Your task to perform on an android device: change keyboard looks Image 0: 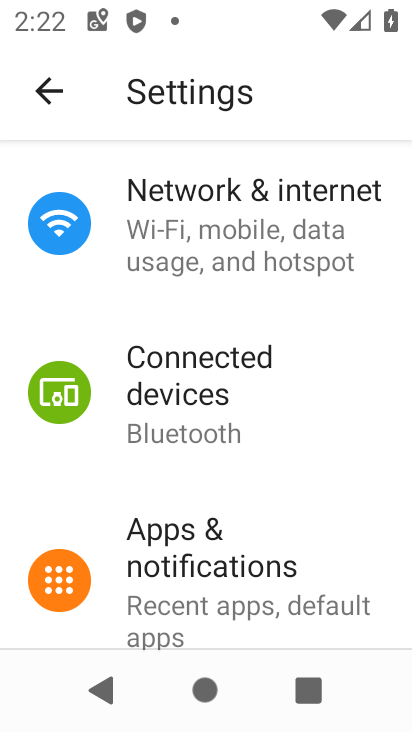
Step 0: drag from (299, 491) to (353, 335)
Your task to perform on an android device: change keyboard looks Image 1: 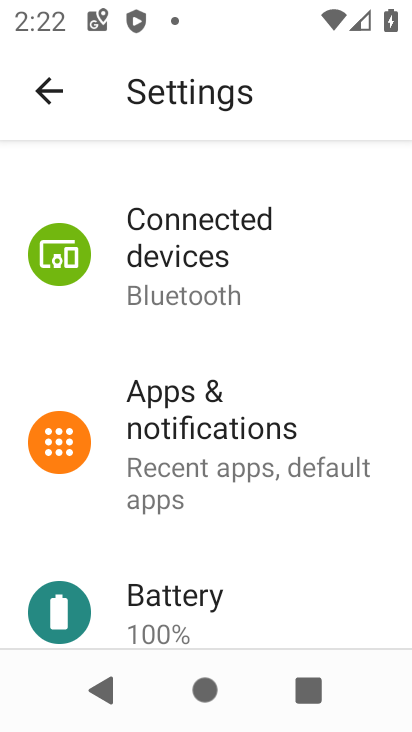
Step 1: drag from (256, 513) to (321, 321)
Your task to perform on an android device: change keyboard looks Image 2: 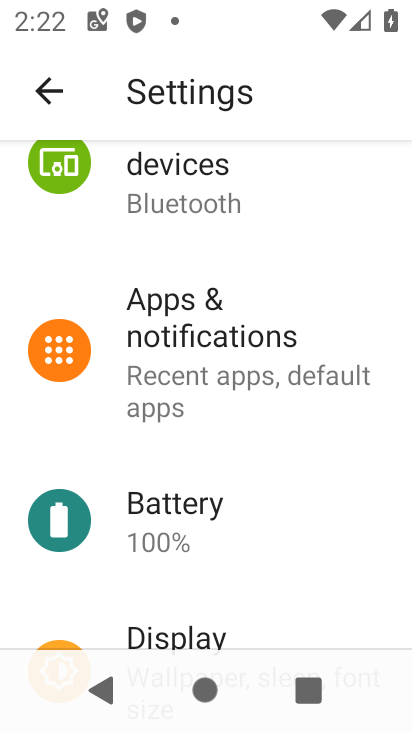
Step 2: drag from (253, 485) to (305, 343)
Your task to perform on an android device: change keyboard looks Image 3: 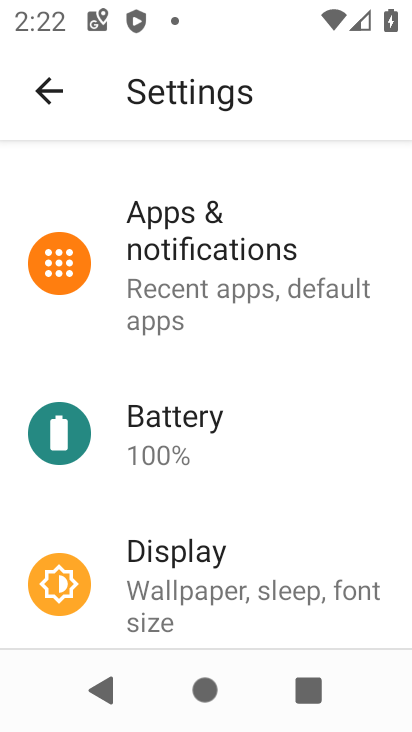
Step 3: drag from (256, 480) to (296, 344)
Your task to perform on an android device: change keyboard looks Image 4: 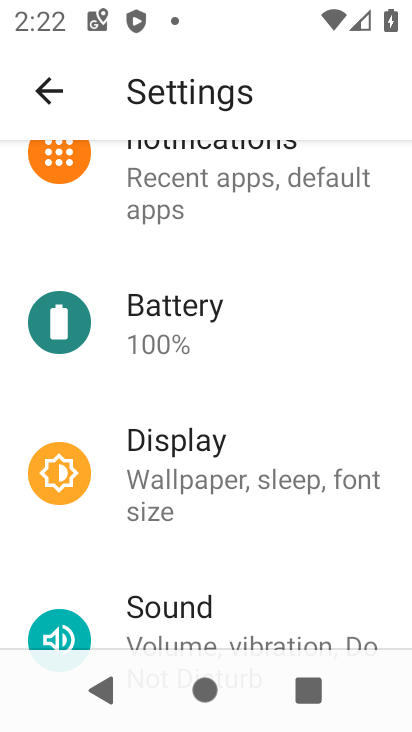
Step 4: drag from (252, 518) to (302, 384)
Your task to perform on an android device: change keyboard looks Image 5: 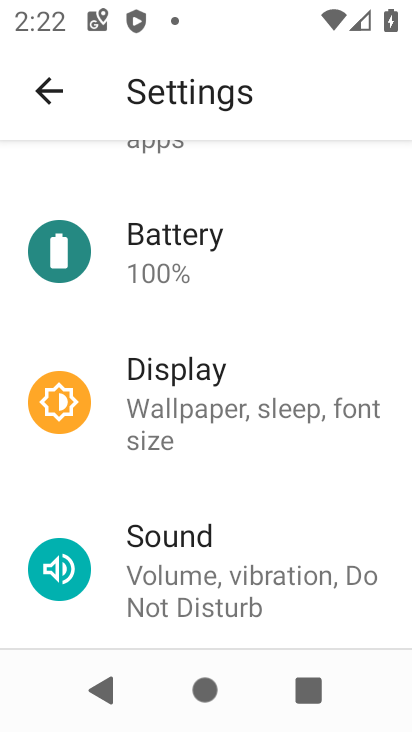
Step 5: drag from (259, 506) to (337, 288)
Your task to perform on an android device: change keyboard looks Image 6: 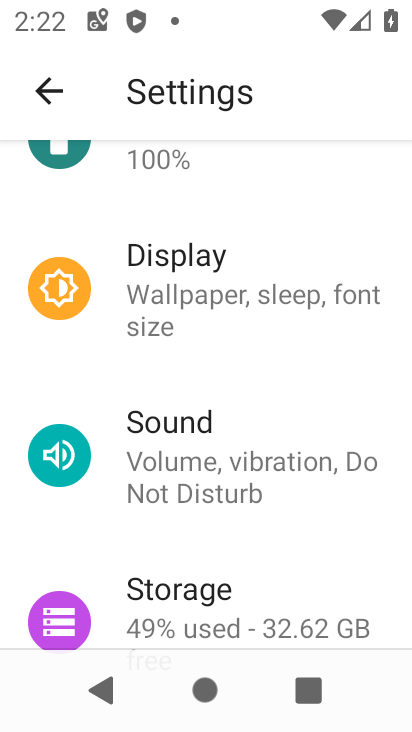
Step 6: drag from (289, 504) to (334, 353)
Your task to perform on an android device: change keyboard looks Image 7: 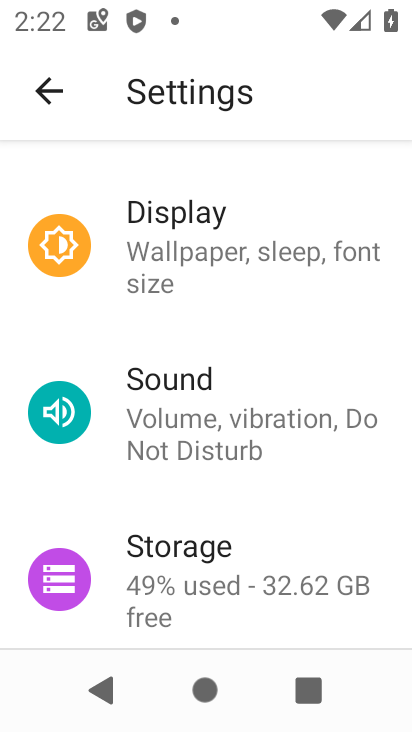
Step 7: drag from (272, 508) to (326, 325)
Your task to perform on an android device: change keyboard looks Image 8: 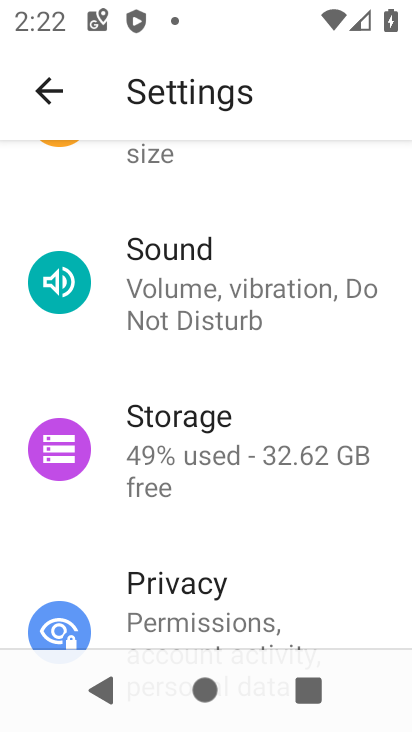
Step 8: drag from (238, 535) to (309, 379)
Your task to perform on an android device: change keyboard looks Image 9: 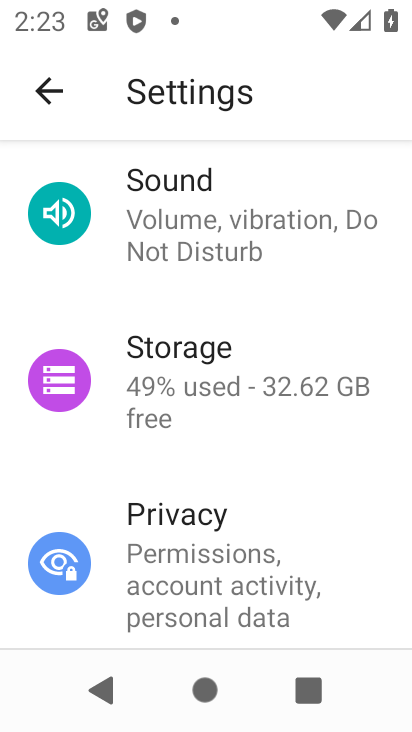
Step 9: drag from (272, 487) to (358, 291)
Your task to perform on an android device: change keyboard looks Image 10: 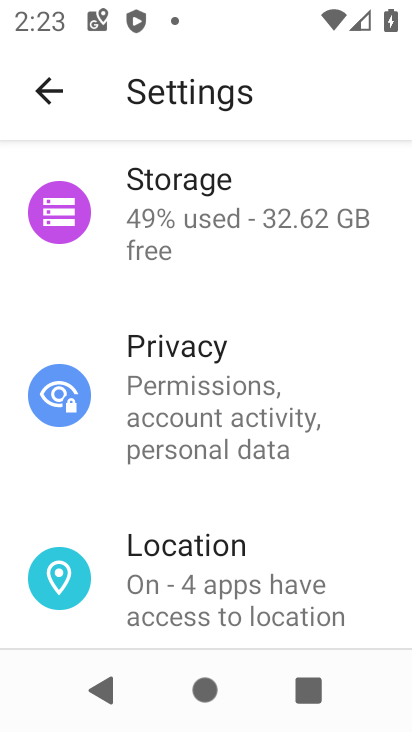
Step 10: drag from (276, 512) to (339, 317)
Your task to perform on an android device: change keyboard looks Image 11: 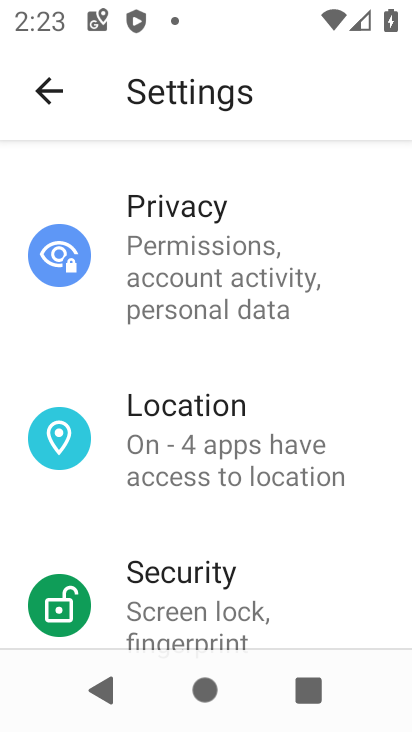
Step 11: drag from (268, 544) to (326, 345)
Your task to perform on an android device: change keyboard looks Image 12: 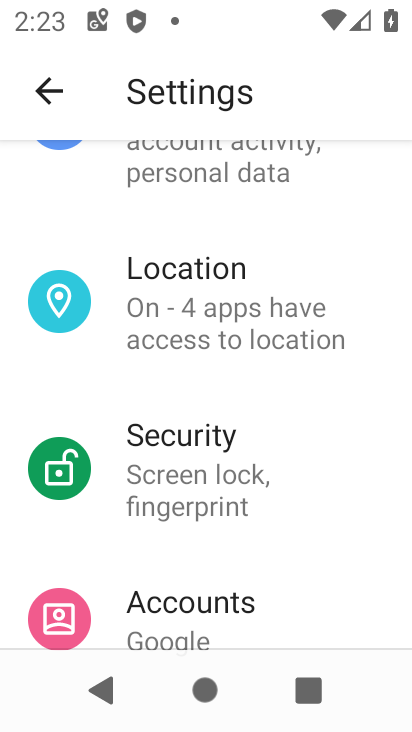
Step 12: drag from (262, 554) to (308, 360)
Your task to perform on an android device: change keyboard looks Image 13: 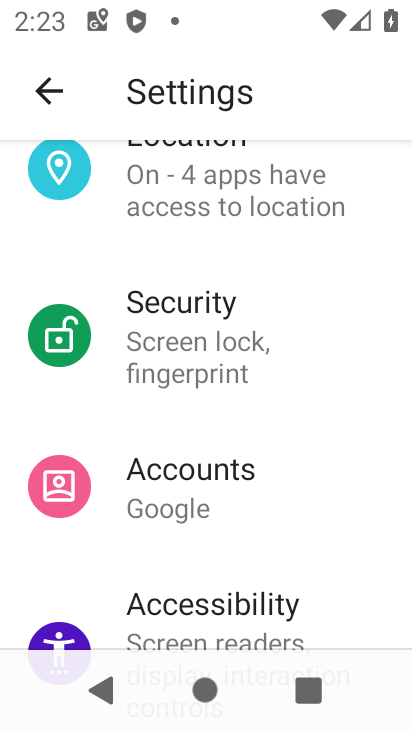
Step 13: drag from (274, 549) to (334, 377)
Your task to perform on an android device: change keyboard looks Image 14: 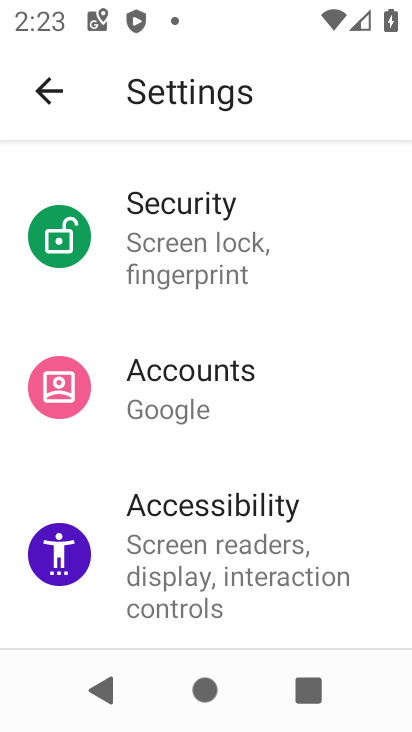
Step 14: drag from (303, 448) to (372, 319)
Your task to perform on an android device: change keyboard looks Image 15: 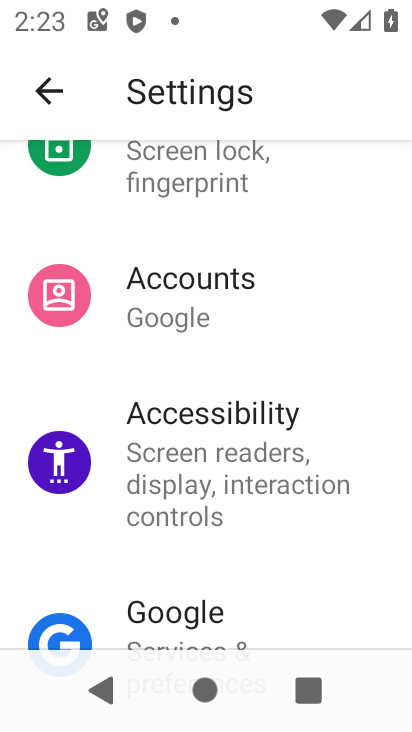
Step 15: drag from (288, 554) to (345, 367)
Your task to perform on an android device: change keyboard looks Image 16: 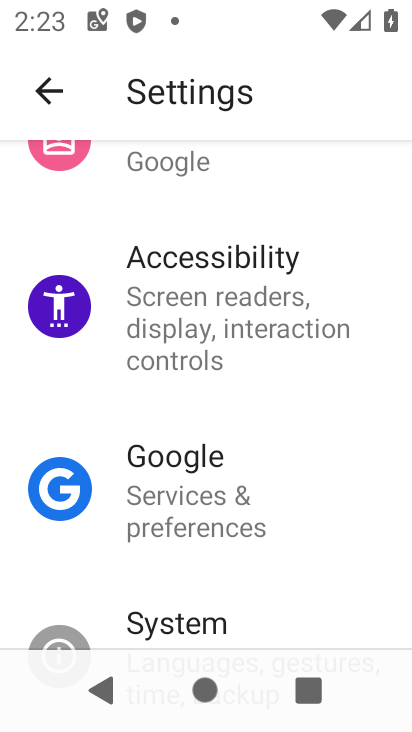
Step 16: drag from (299, 578) to (350, 383)
Your task to perform on an android device: change keyboard looks Image 17: 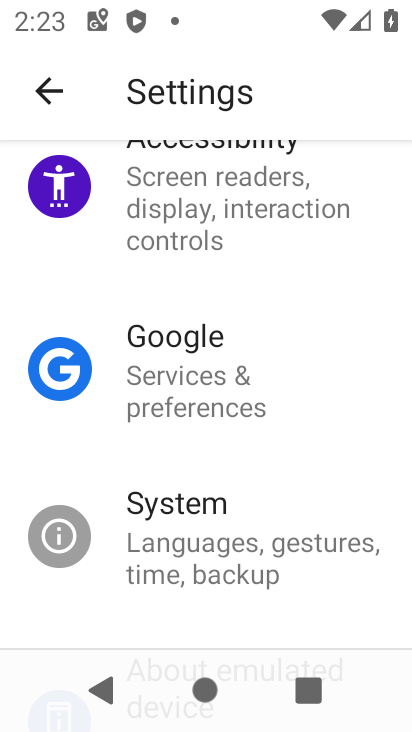
Step 17: click (212, 506)
Your task to perform on an android device: change keyboard looks Image 18: 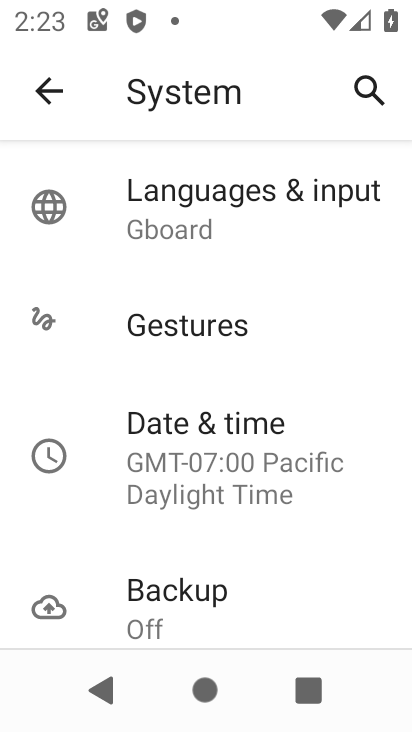
Step 18: click (294, 189)
Your task to perform on an android device: change keyboard looks Image 19: 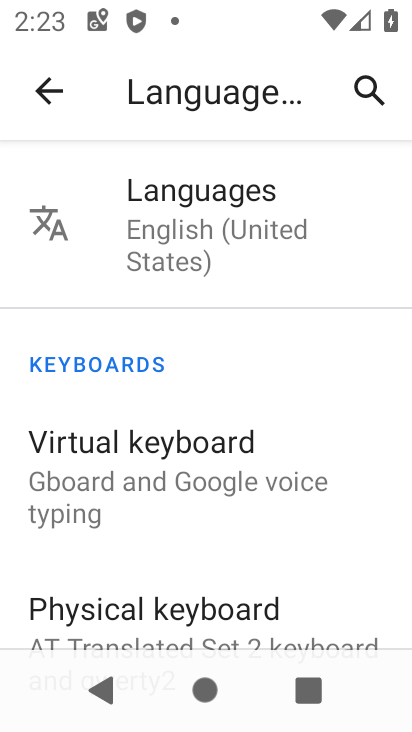
Step 19: click (237, 443)
Your task to perform on an android device: change keyboard looks Image 20: 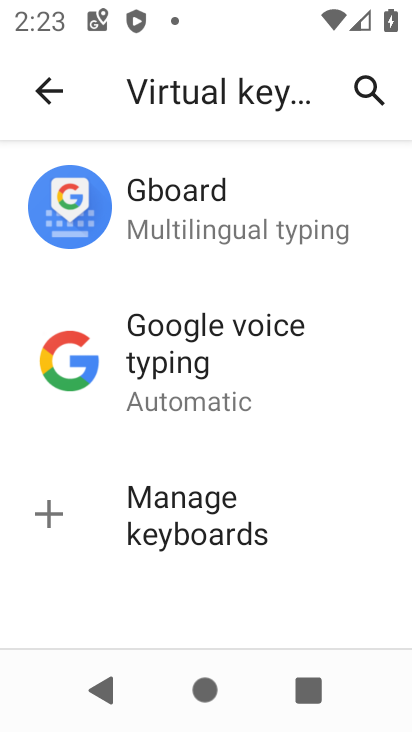
Step 20: click (215, 237)
Your task to perform on an android device: change keyboard looks Image 21: 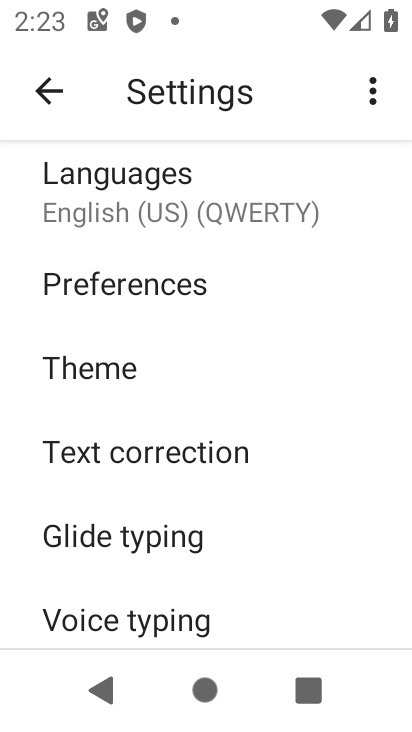
Step 21: click (123, 373)
Your task to perform on an android device: change keyboard looks Image 22: 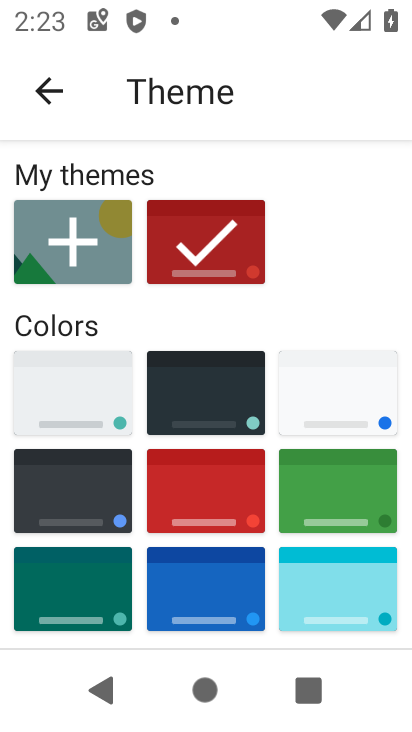
Step 22: click (327, 495)
Your task to perform on an android device: change keyboard looks Image 23: 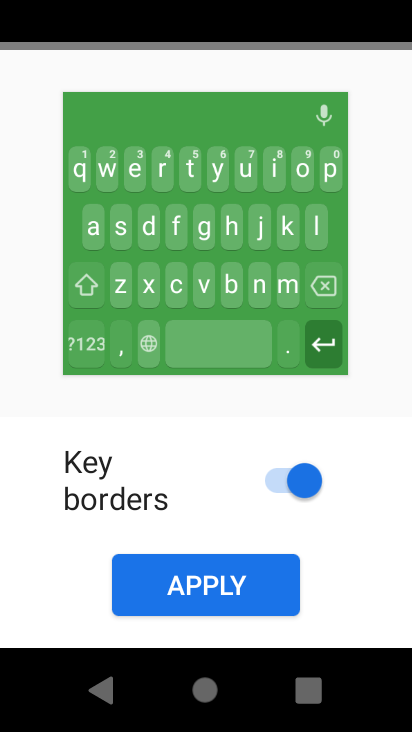
Step 23: click (223, 587)
Your task to perform on an android device: change keyboard looks Image 24: 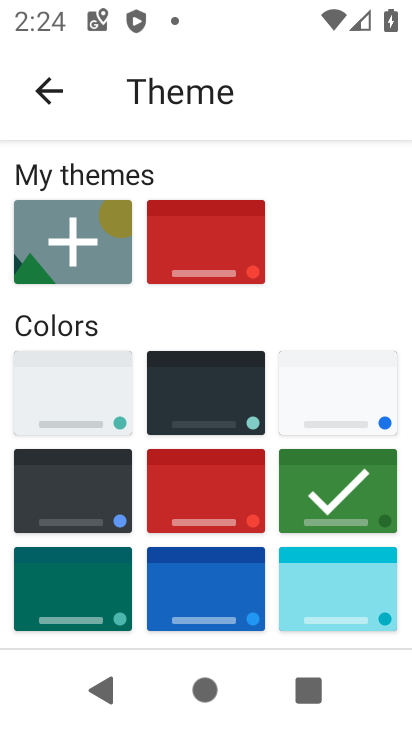
Step 24: task complete